Your task to perform on an android device: empty trash in the gmail app Image 0: 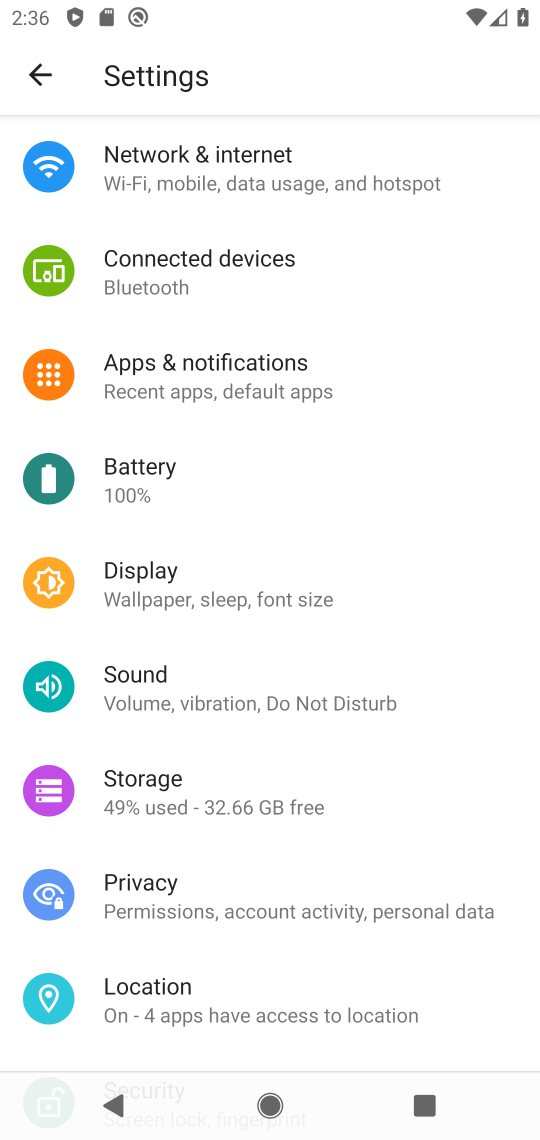
Step 0: press home button
Your task to perform on an android device: empty trash in the gmail app Image 1: 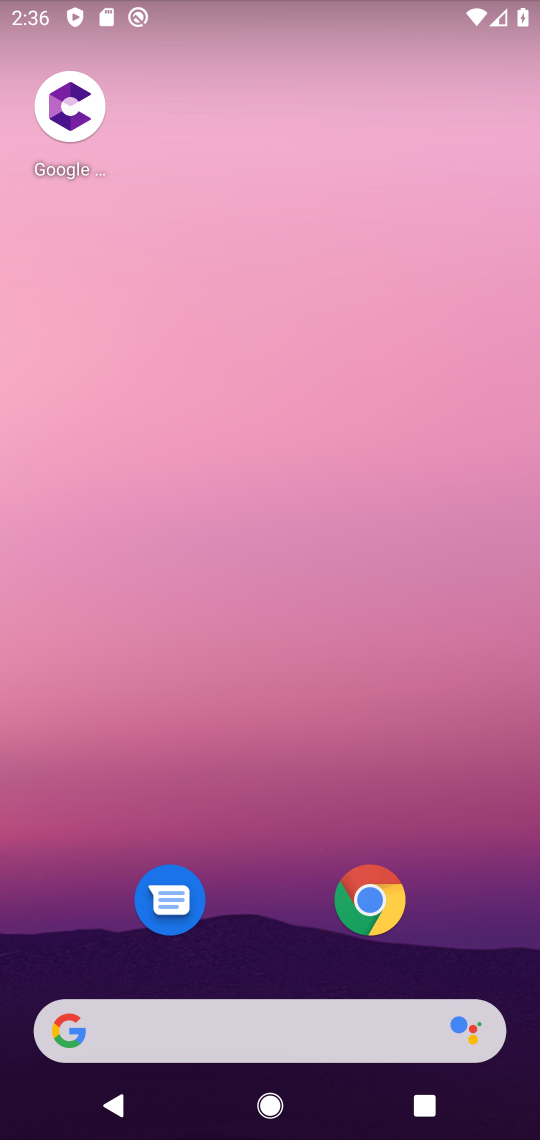
Step 1: click (260, 239)
Your task to perform on an android device: empty trash in the gmail app Image 2: 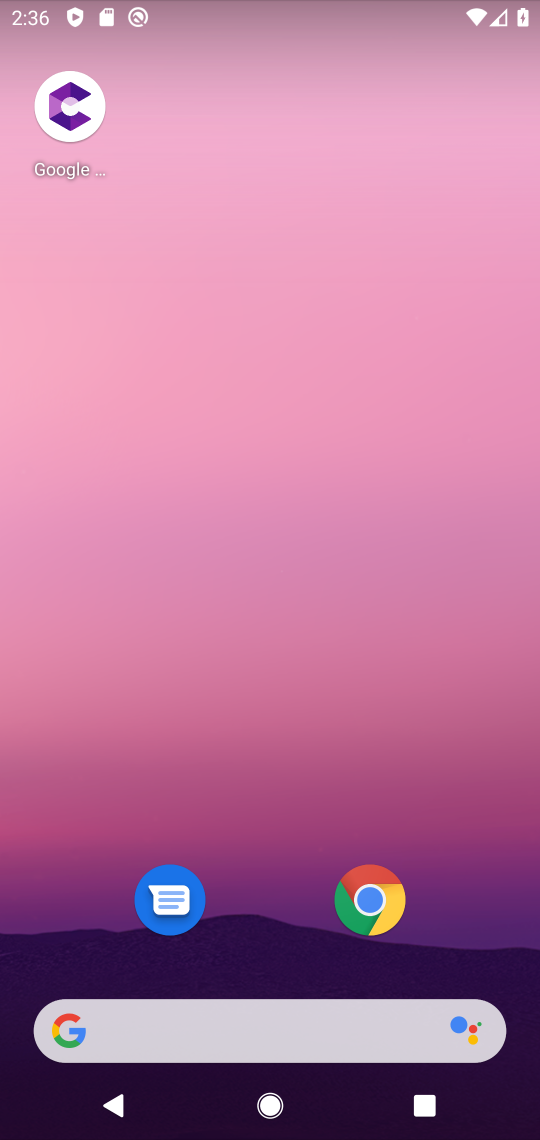
Step 2: drag from (300, 964) to (281, 92)
Your task to perform on an android device: empty trash in the gmail app Image 3: 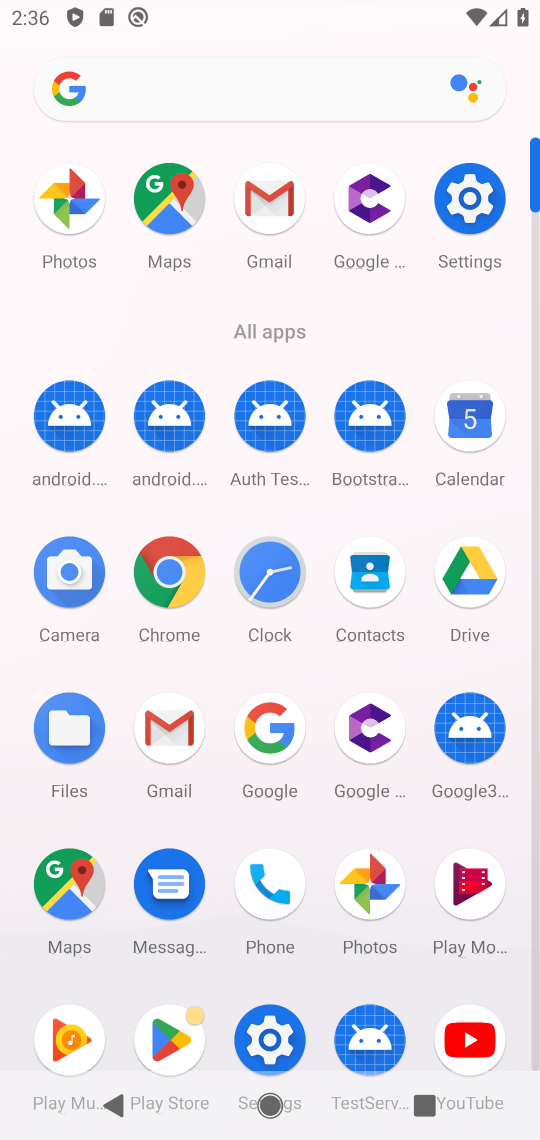
Step 3: click (276, 262)
Your task to perform on an android device: empty trash in the gmail app Image 4: 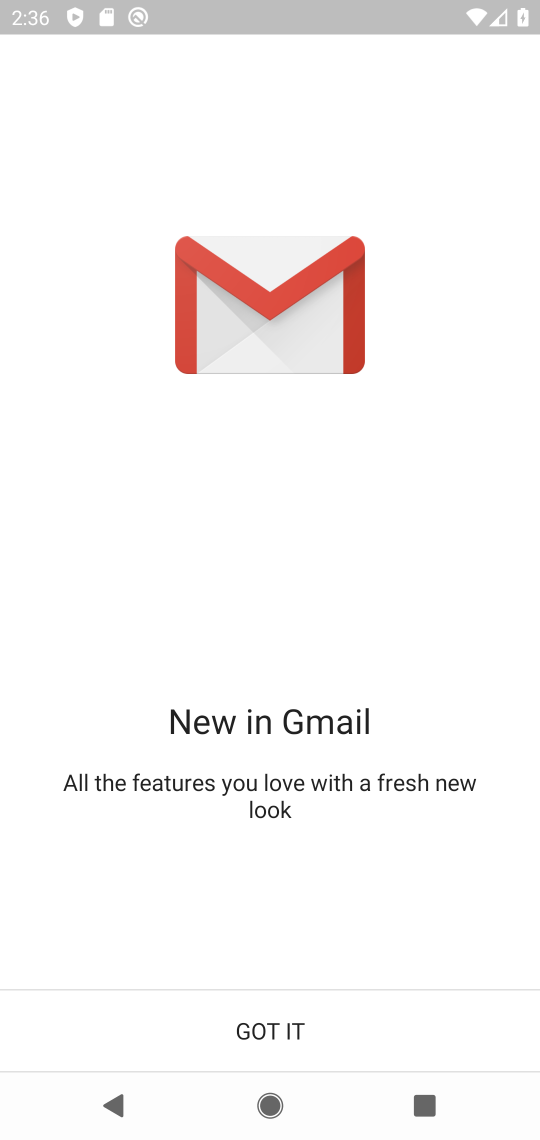
Step 4: click (318, 1010)
Your task to perform on an android device: empty trash in the gmail app Image 5: 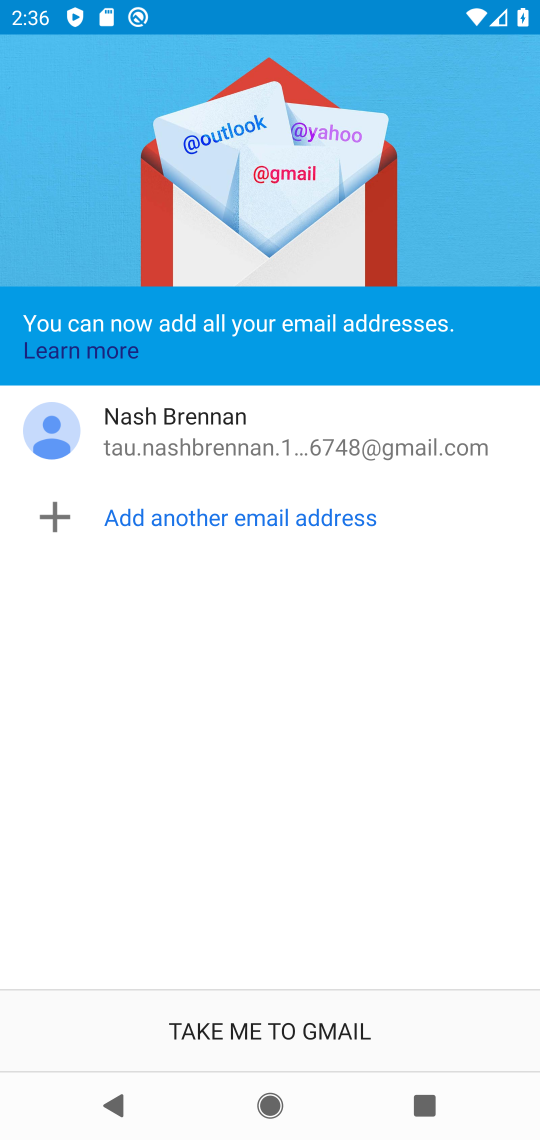
Step 5: click (318, 1010)
Your task to perform on an android device: empty trash in the gmail app Image 6: 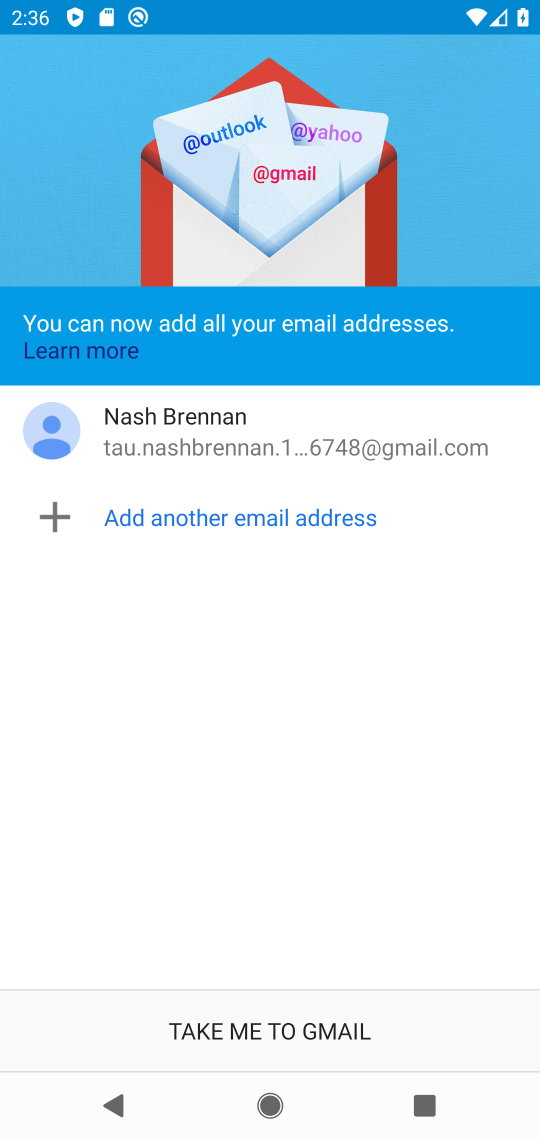
Step 6: click (318, 1010)
Your task to perform on an android device: empty trash in the gmail app Image 7: 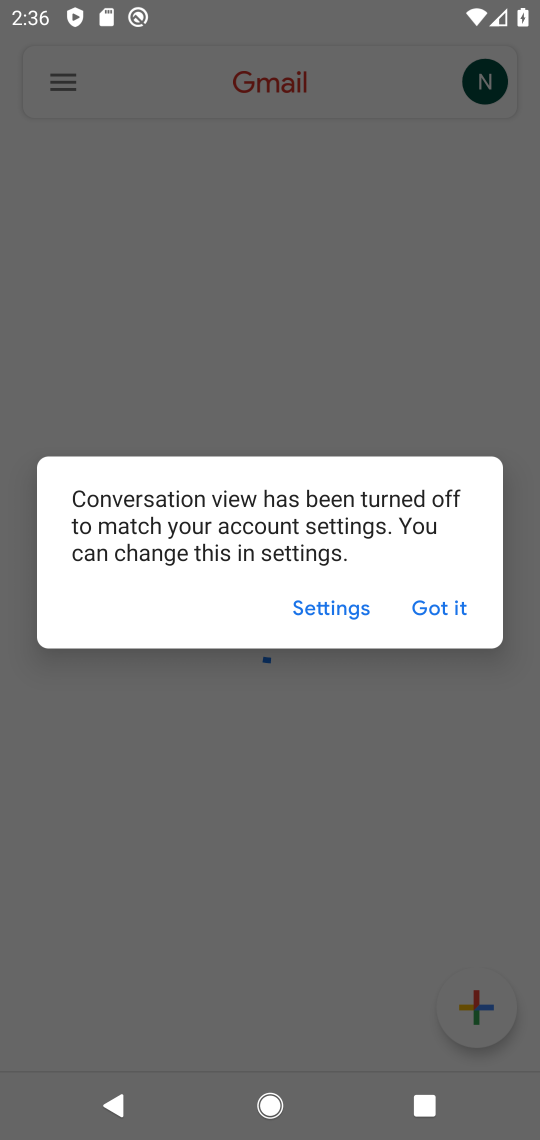
Step 7: task complete